Your task to perform on an android device: turn on the 24-hour format for clock Image 0: 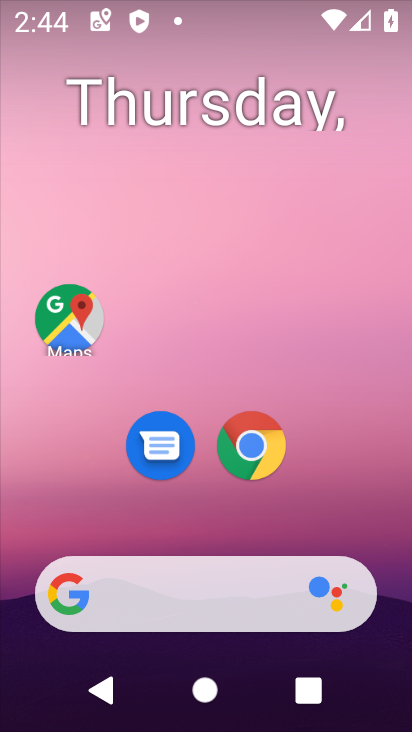
Step 0: press home button
Your task to perform on an android device: turn on the 24-hour format for clock Image 1: 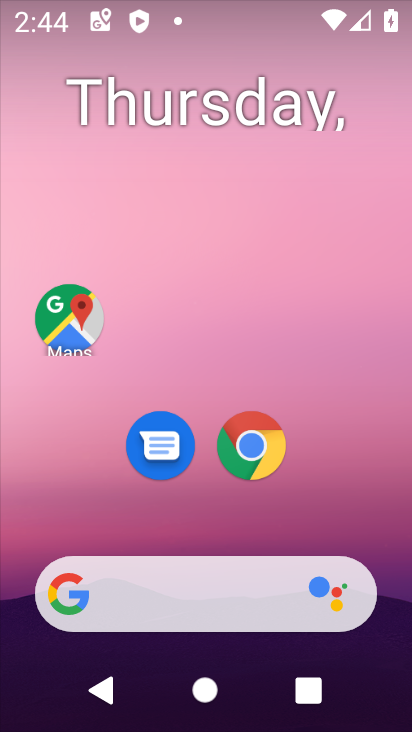
Step 1: drag from (16, 568) to (234, 89)
Your task to perform on an android device: turn on the 24-hour format for clock Image 2: 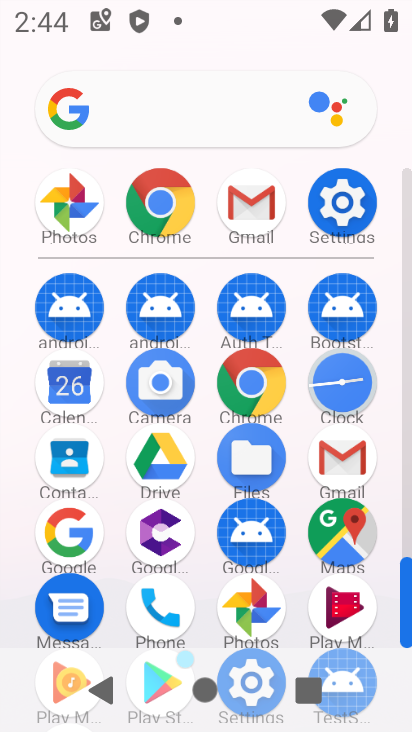
Step 2: click (328, 205)
Your task to perform on an android device: turn on the 24-hour format for clock Image 3: 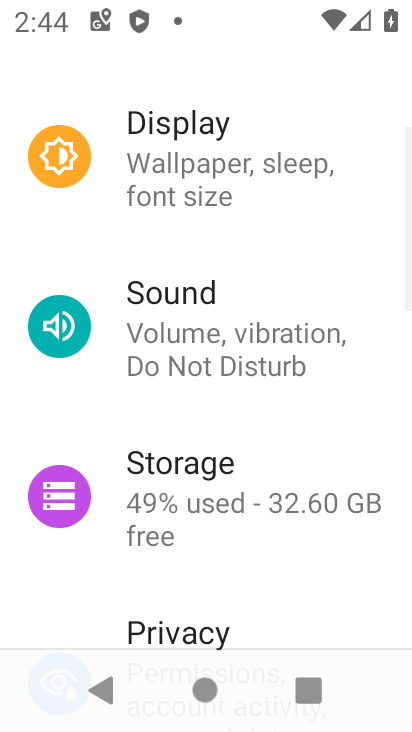
Step 3: press back button
Your task to perform on an android device: turn on the 24-hour format for clock Image 4: 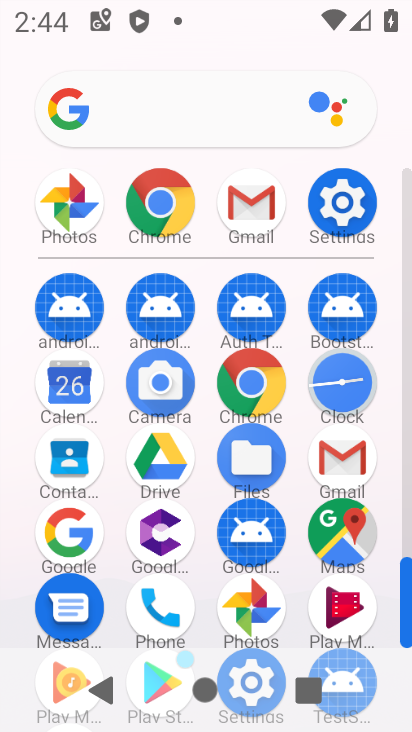
Step 4: click (338, 383)
Your task to perform on an android device: turn on the 24-hour format for clock Image 5: 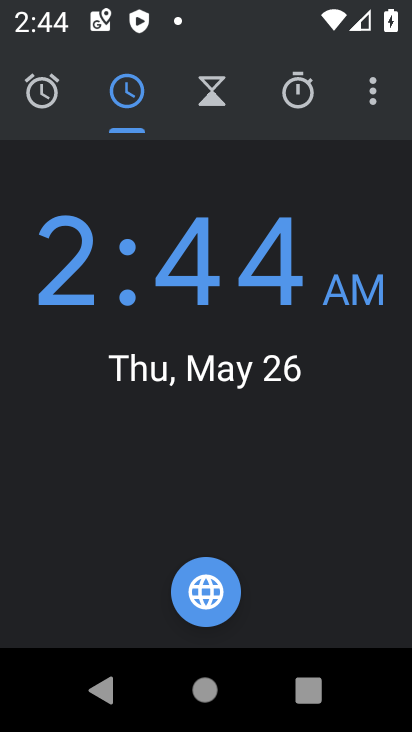
Step 5: click (380, 92)
Your task to perform on an android device: turn on the 24-hour format for clock Image 6: 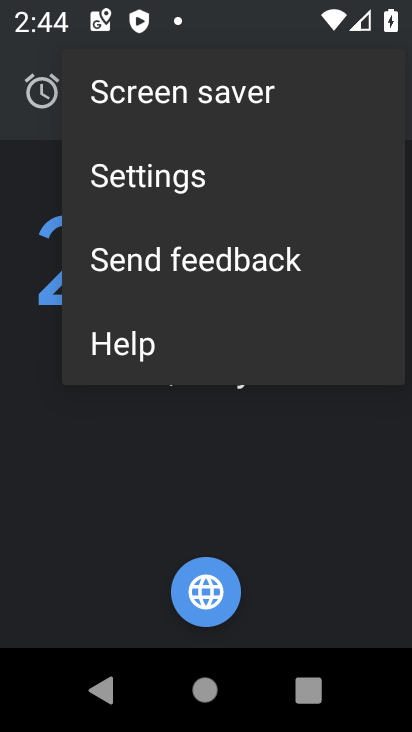
Step 6: click (248, 179)
Your task to perform on an android device: turn on the 24-hour format for clock Image 7: 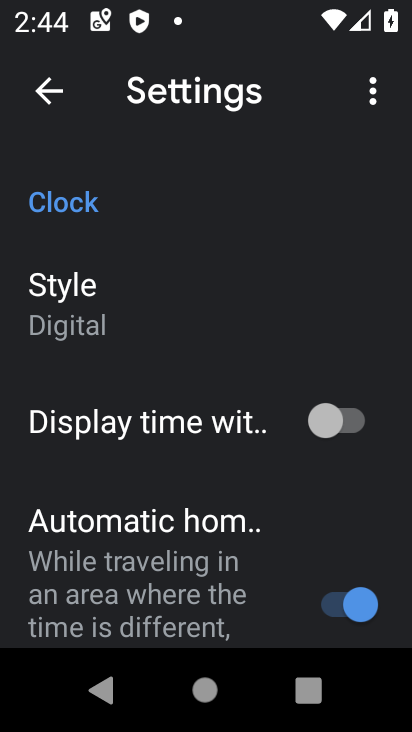
Step 7: drag from (8, 501) to (233, 66)
Your task to perform on an android device: turn on the 24-hour format for clock Image 8: 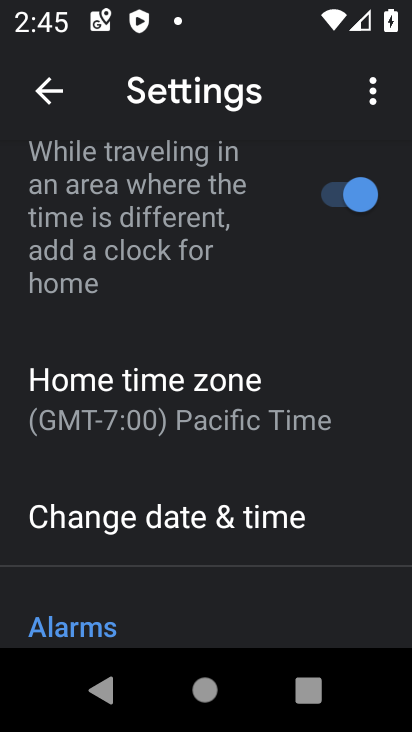
Step 8: click (143, 537)
Your task to perform on an android device: turn on the 24-hour format for clock Image 9: 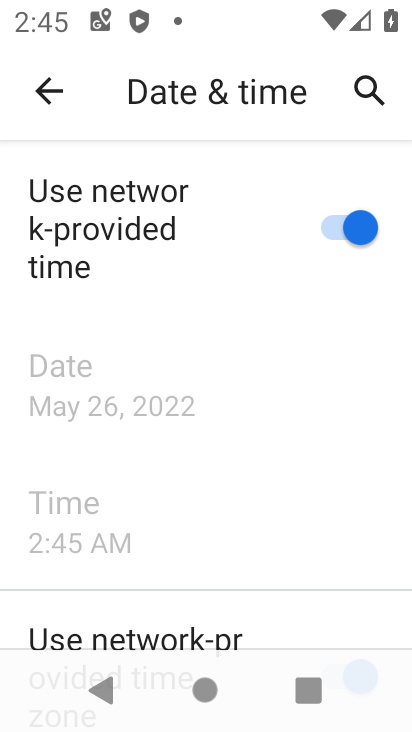
Step 9: drag from (1, 637) to (227, 194)
Your task to perform on an android device: turn on the 24-hour format for clock Image 10: 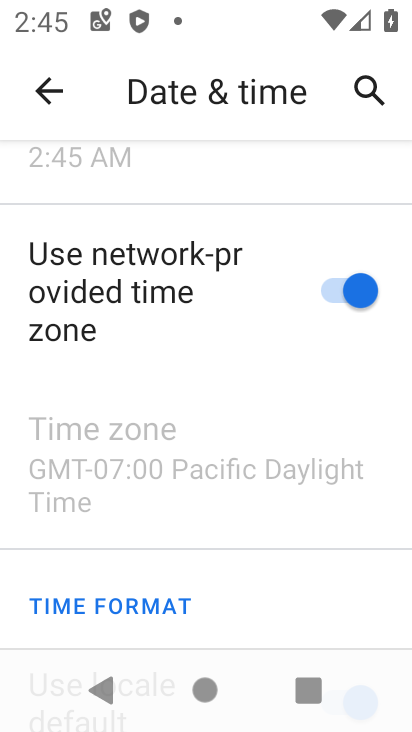
Step 10: drag from (10, 636) to (258, 198)
Your task to perform on an android device: turn on the 24-hour format for clock Image 11: 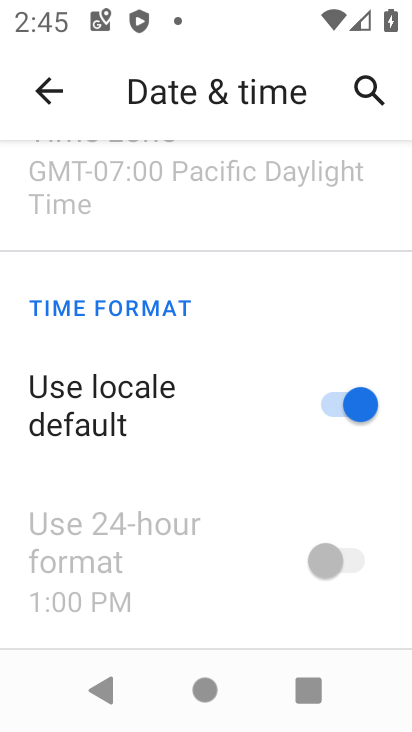
Step 11: click (351, 402)
Your task to perform on an android device: turn on the 24-hour format for clock Image 12: 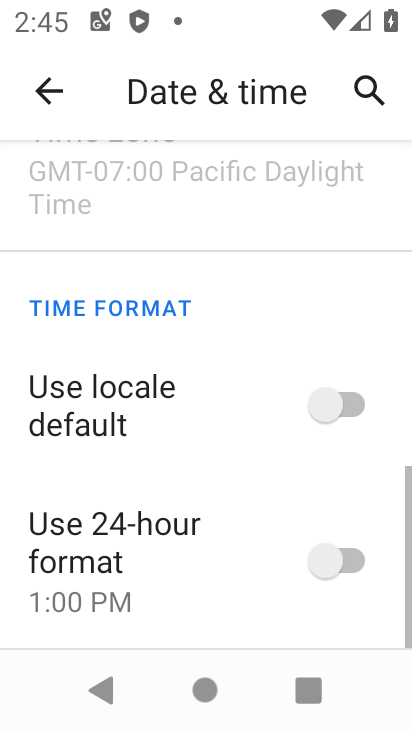
Step 12: click (324, 567)
Your task to perform on an android device: turn on the 24-hour format for clock Image 13: 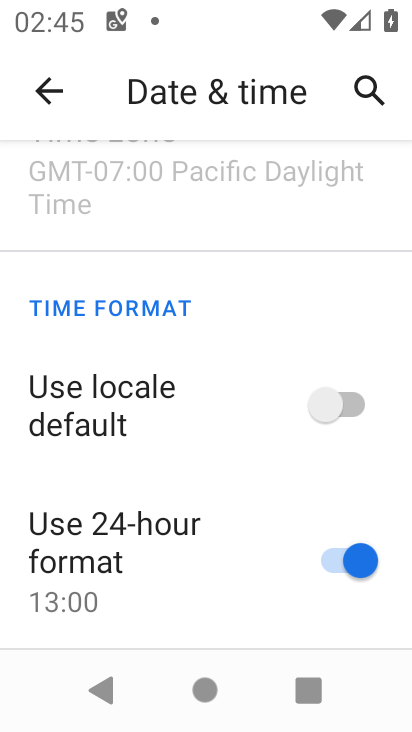
Step 13: task complete